Your task to perform on an android device: Open the phone app and click the voicemail tab. Image 0: 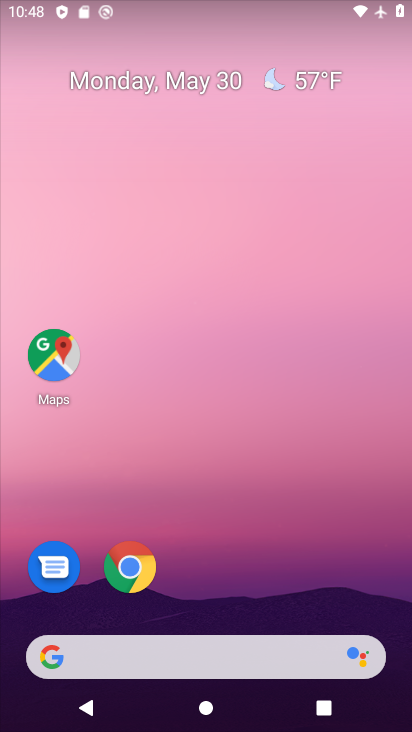
Step 0: drag from (189, 596) to (191, 225)
Your task to perform on an android device: Open the phone app and click the voicemail tab. Image 1: 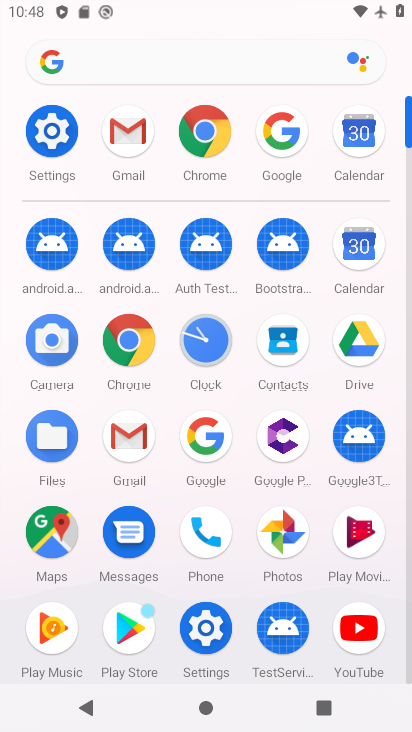
Step 1: click (185, 530)
Your task to perform on an android device: Open the phone app and click the voicemail tab. Image 2: 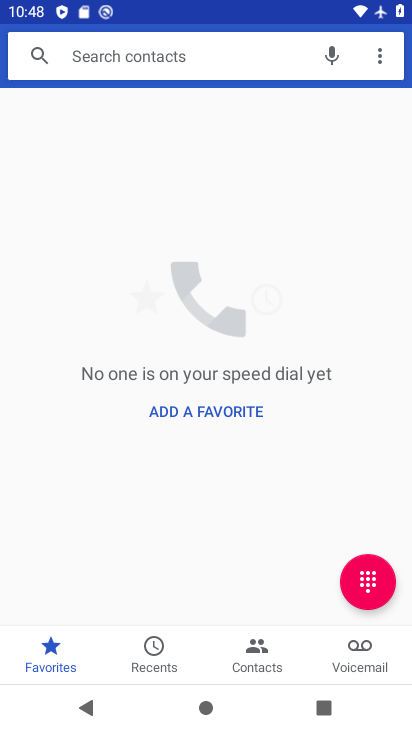
Step 2: click (369, 644)
Your task to perform on an android device: Open the phone app and click the voicemail tab. Image 3: 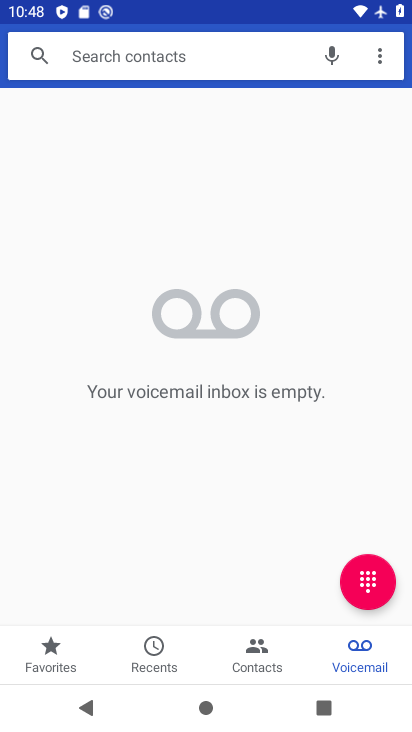
Step 3: task complete